Your task to perform on an android device: Open settings Image 0: 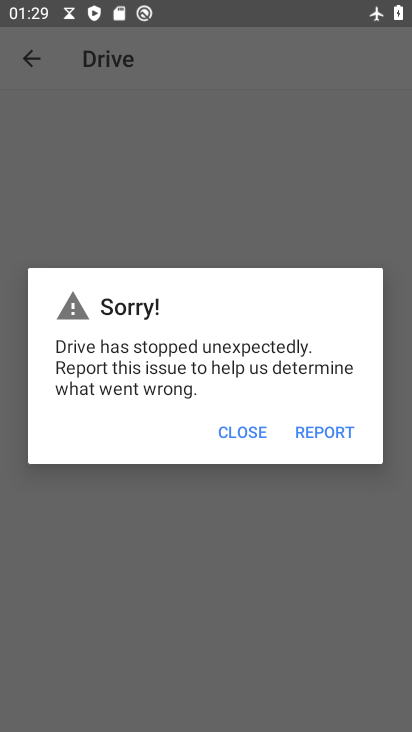
Step 0: click (253, 425)
Your task to perform on an android device: Open settings Image 1: 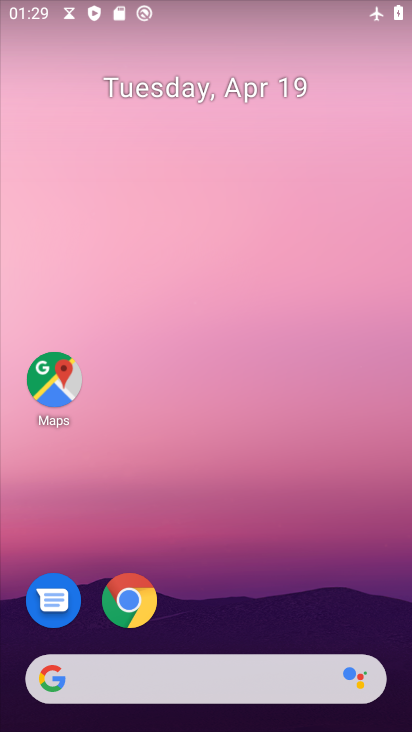
Step 1: drag from (203, 644) to (217, 23)
Your task to perform on an android device: Open settings Image 2: 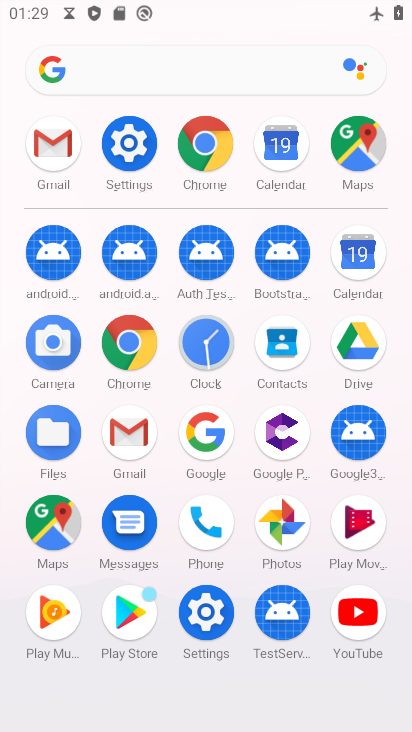
Step 2: click (136, 157)
Your task to perform on an android device: Open settings Image 3: 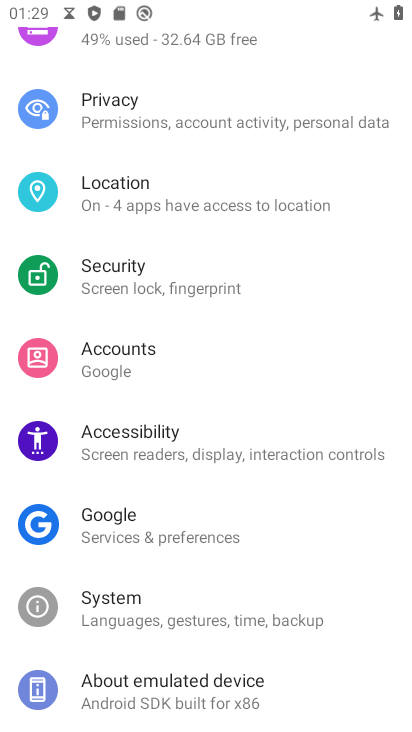
Step 3: task complete